Your task to perform on an android device: allow cookies in the chrome app Image 0: 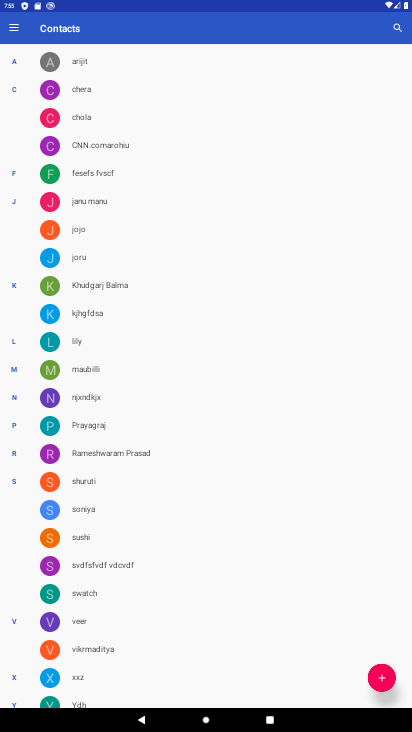
Step 0: press home button
Your task to perform on an android device: allow cookies in the chrome app Image 1: 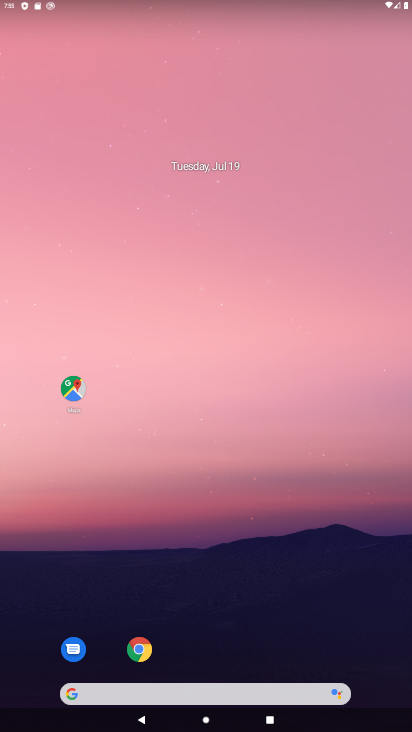
Step 1: click (137, 645)
Your task to perform on an android device: allow cookies in the chrome app Image 2: 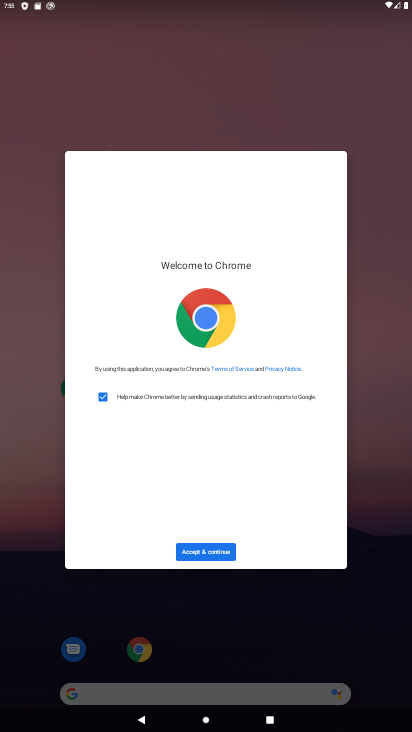
Step 2: click (205, 553)
Your task to perform on an android device: allow cookies in the chrome app Image 3: 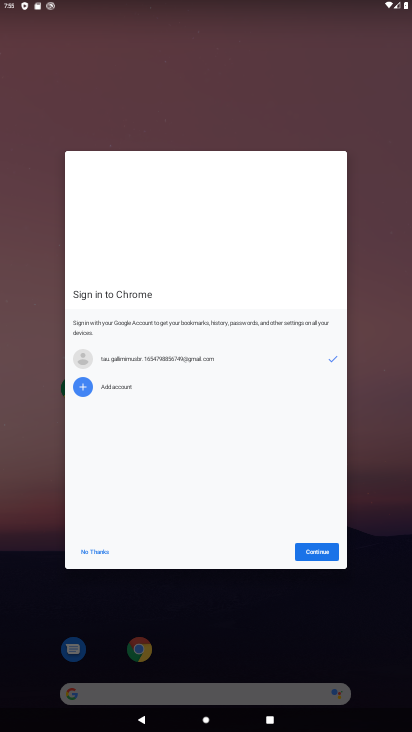
Step 3: click (310, 554)
Your task to perform on an android device: allow cookies in the chrome app Image 4: 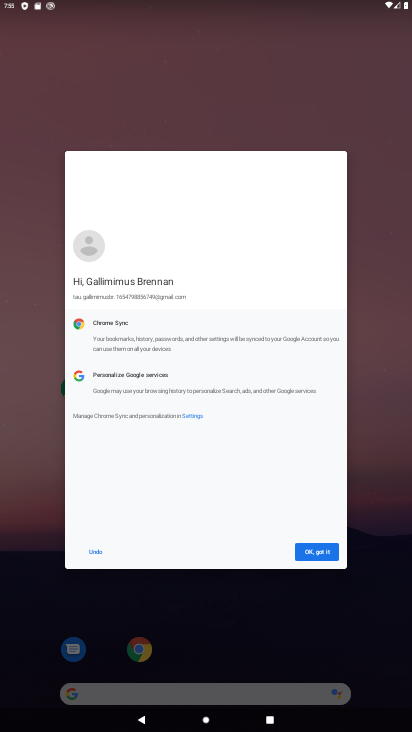
Step 4: click (310, 554)
Your task to perform on an android device: allow cookies in the chrome app Image 5: 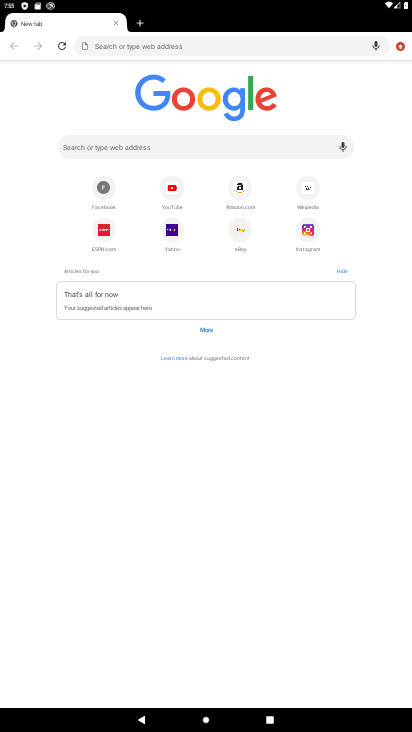
Step 5: click (398, 43)
Your task to perform on an android device: allow cookies in the chrome app Image 6: 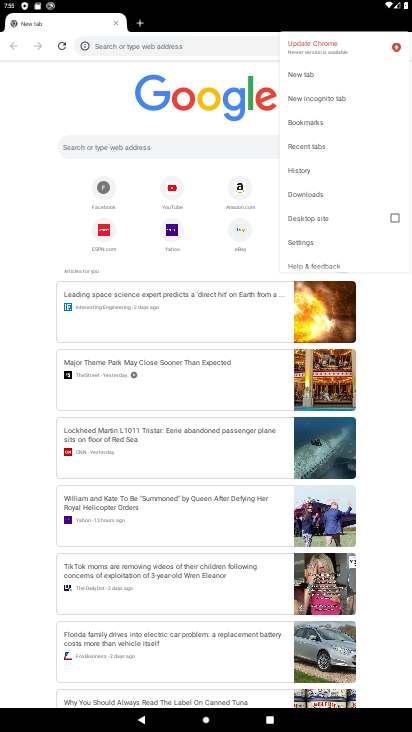
Step 6: click (321, 239)
Your task to perform on an android device: allow cookies in the chrome app Image 7: 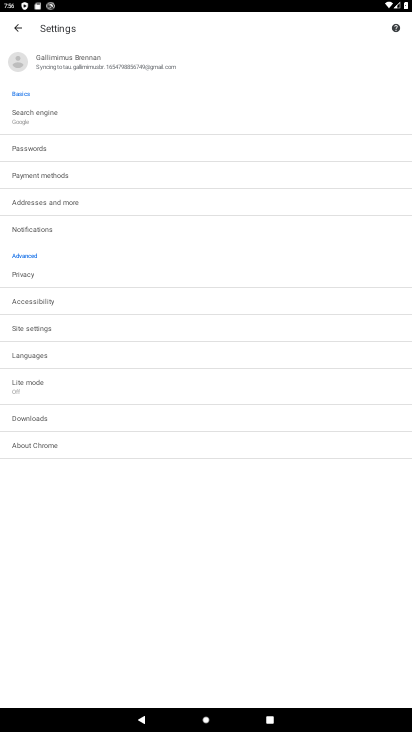
Step 7: click (57, 326)
Your task to perform on an android device: allow cookies in the chrome app Image 8: 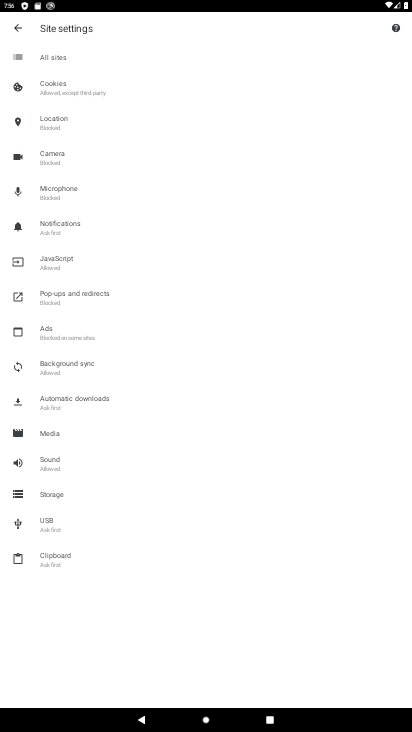
Step 8: click (74, 83)
Your task to perform on an android device: allow cookies in the chrome app Image 9: 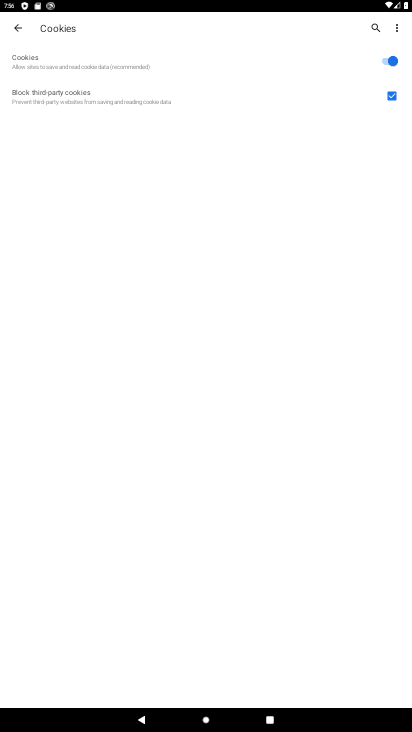
Step 9: task complete